Your task to perform on an android device: Find coffee shops on Maps Image 0: 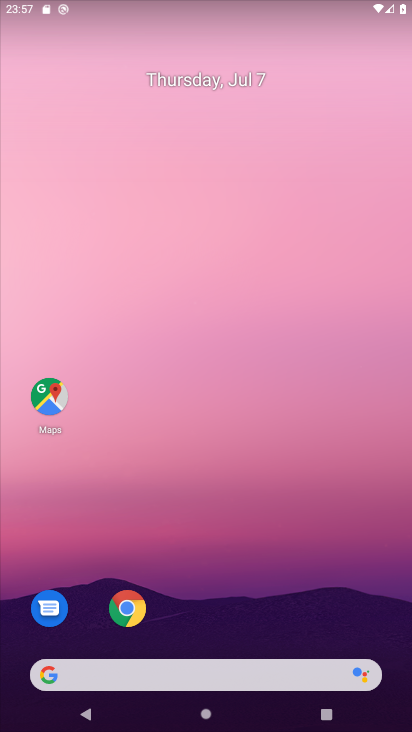
Step 0: drag from (228, 596) to (249, 253)
Your task to perform on an android device: Find coffee shops on Maps Image 1: 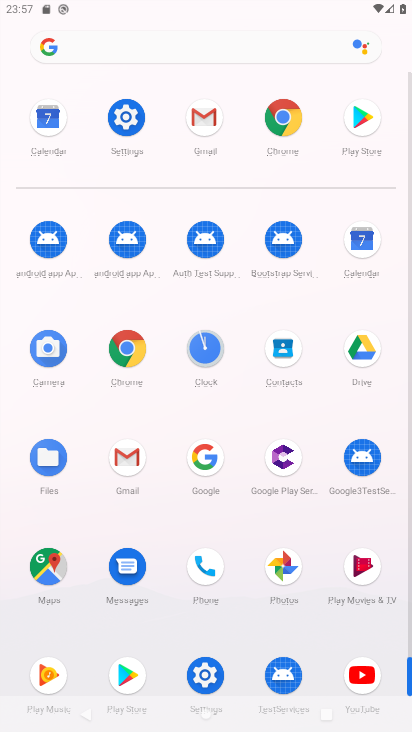
Step 1: click (50, 573)
Your task to perform on an android device: Find coffee shops on Maps Image 2: 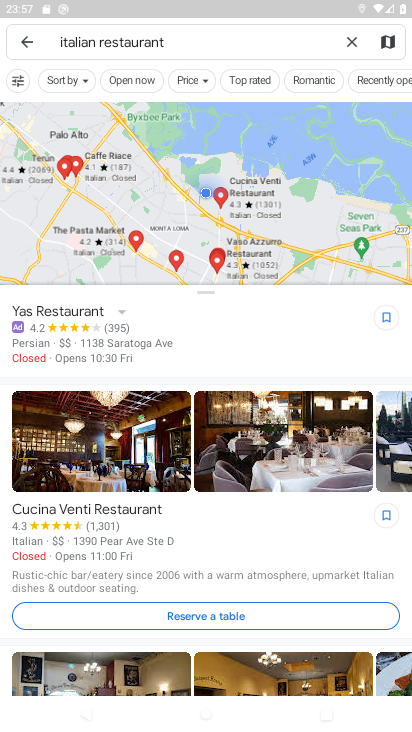
Step 2: click (346, 32)
Your task to perform on an android device: Find coffee shops on Maps Image 3: 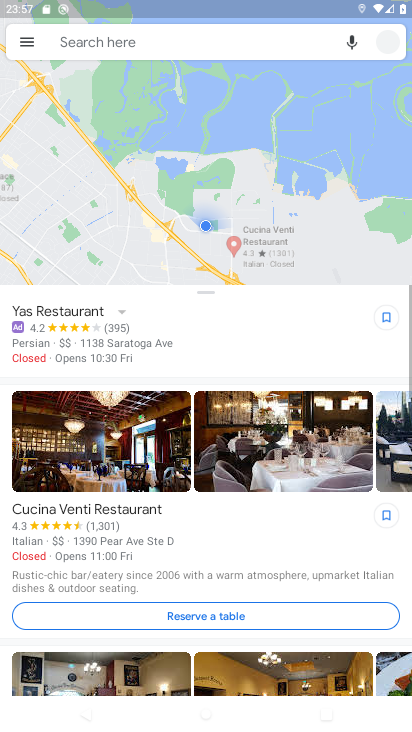
Step 3: click (342, 34)
Your task to perform on an android device: Find coffee shops on Maps Image 4: 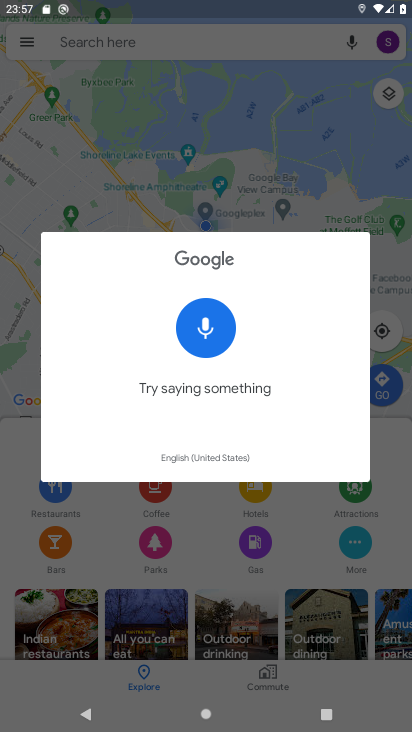
Step 4: click (381, 151)
Your task to perform on an android device: Find coffee shops on Maps Image 5: 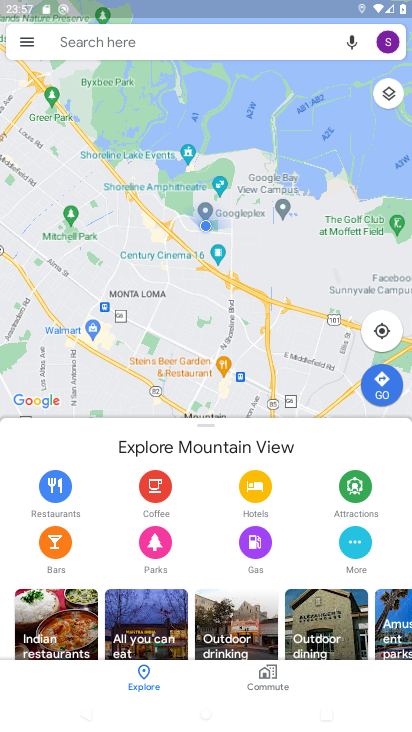
Step 5: click (168, 25)
Your task to perform on an android device: Find coffee shops on Maps Image 6: 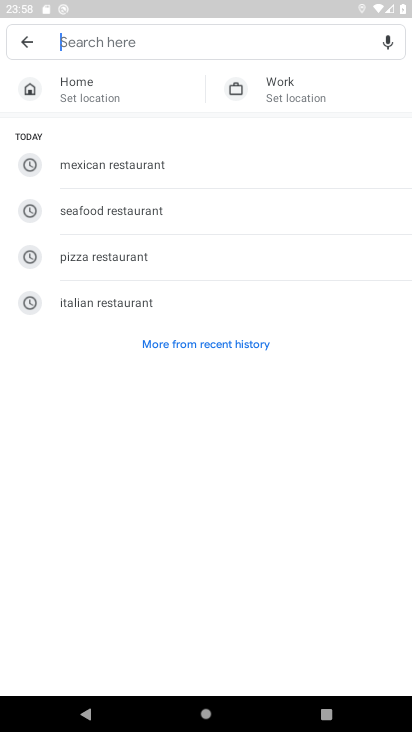
Step 6: type "coffee shop "
Your task to perform on an android device: Find coffee shops on Maps Image 7: 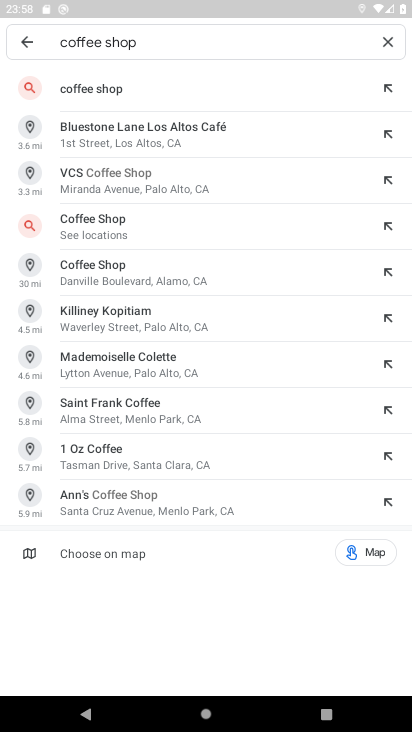
Step 7: click (141, 83)
Your task to perform on an android device: Find coffee shops on Maps Image 8: 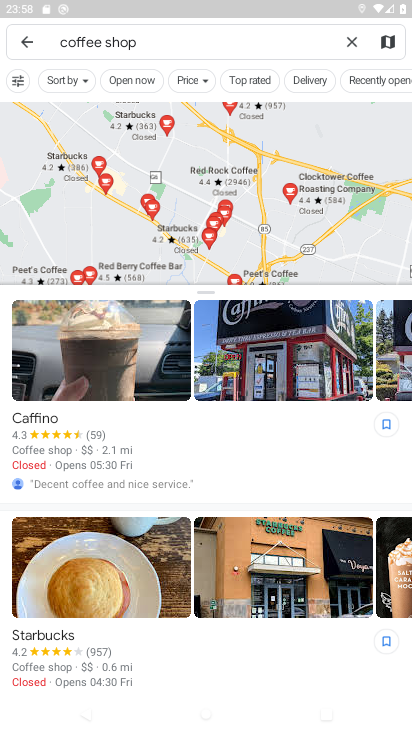
Step 8: task complete